Your task to perform on an android device: Go to sound settings Image 0: 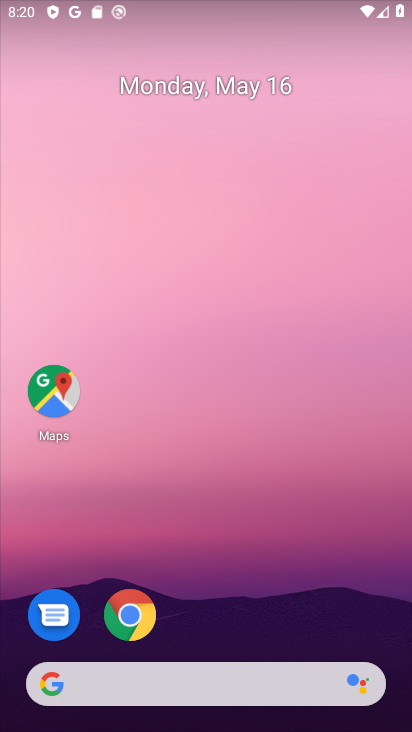
Step 0: press home button
Your task to perform on an android device: Go to sound settings Image 1: 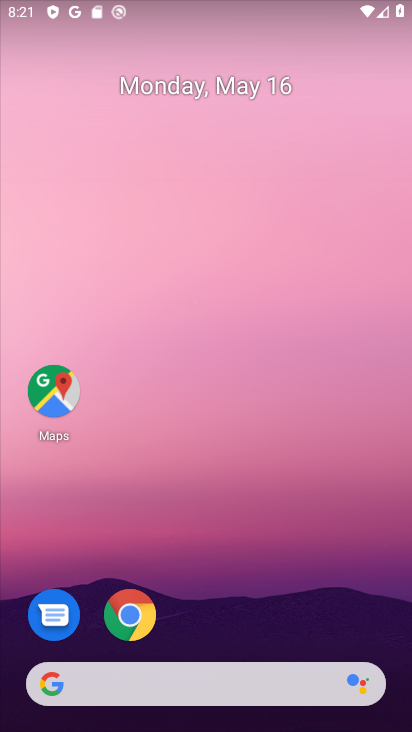
Step 1: drag from (40, 508) to (219, 124)
Your task to perform on an android device: Go to sound settings Image 2: 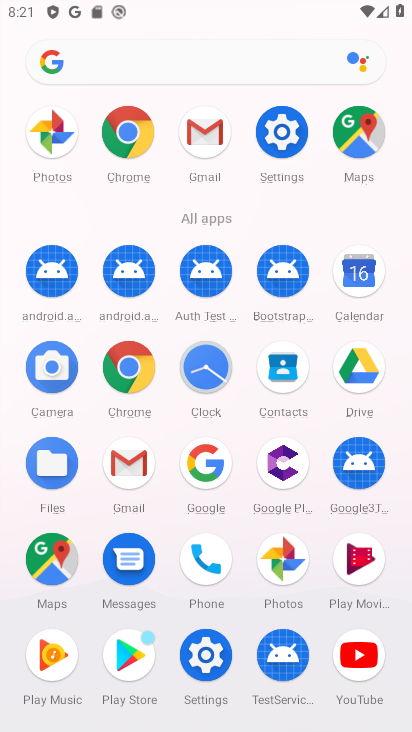
Step 2: click (287, 126)
Your task to perform on an android device: Go to sound settings Image 3: 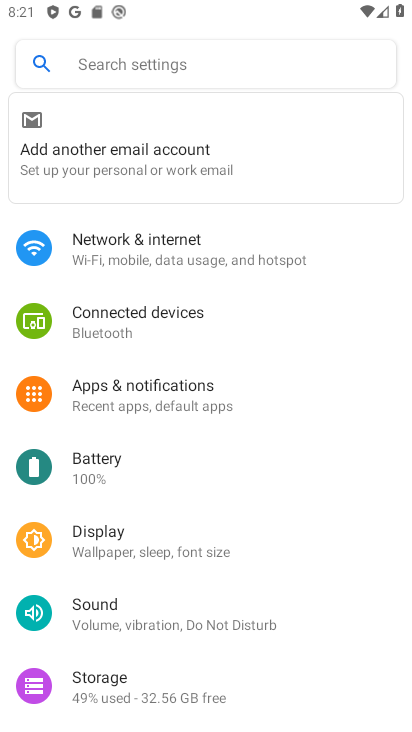
Step 3: click (38, 601)
Your task to perform on an android device: Go to sound settings Image 4: 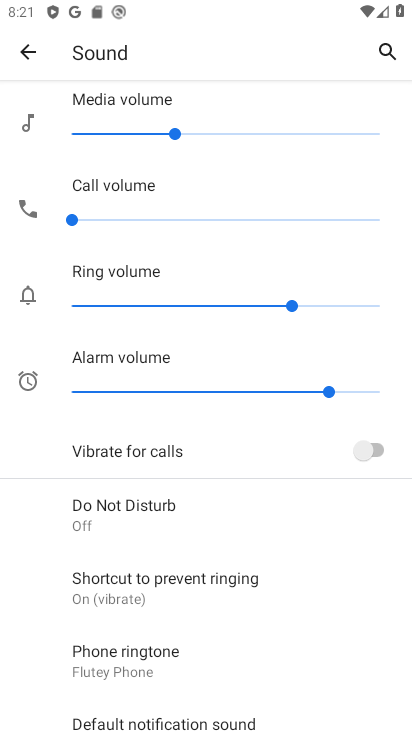
Step 4: task complete